Your task to perform on an android device: turn off javascript in the chrome app Image 0: 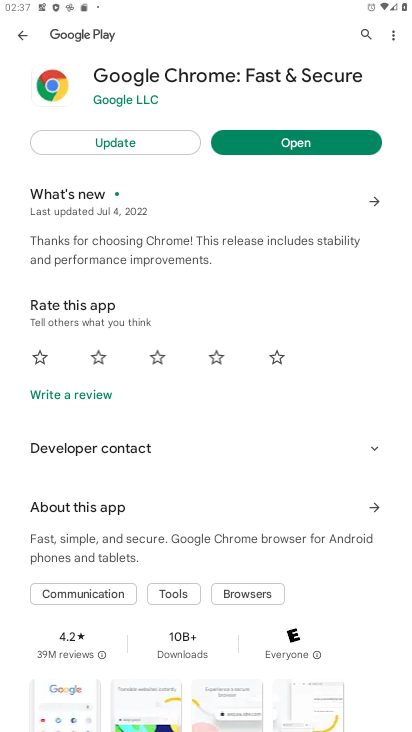
Step 0: press home button
Your task to perform on an android device: turn off javascript in the chrome app Image 1: 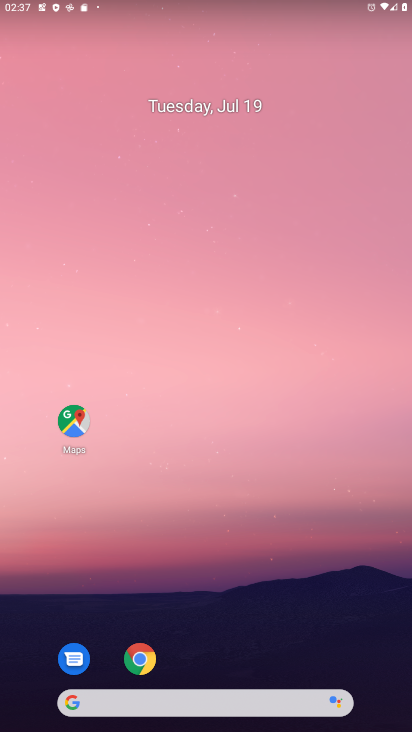
Step 1: click (120, 661)
Your task to perform on an android device: turn off javascript in the chrome app Image 2: 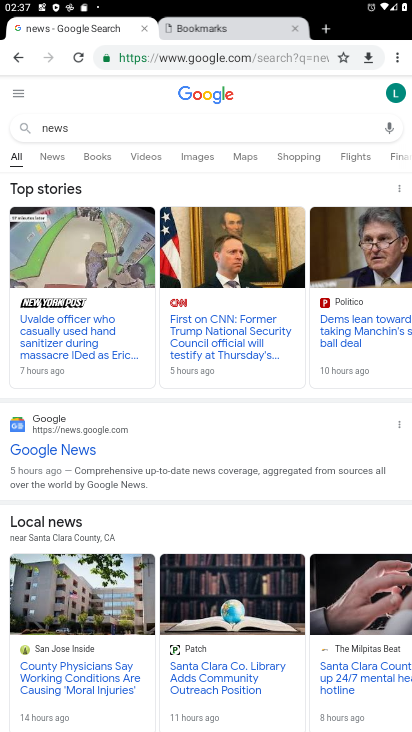
Step 2: click (392, 59)
Your task to perform on an android device: turn off javascript in the chrome app Image 3: 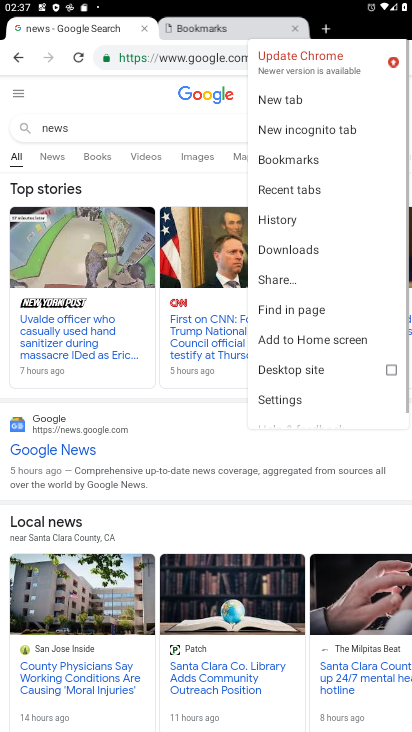
Step 3: click (297, 394)
Your task to perform on an android device: turn off javascript in the chrome app Image 4: 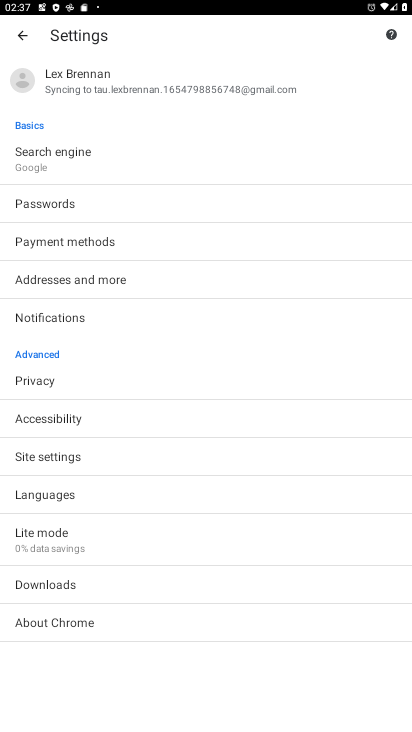
Step 4: click (43, 461)
Your task to perform on an android device: turn off javascript in the chrome app Image 5: 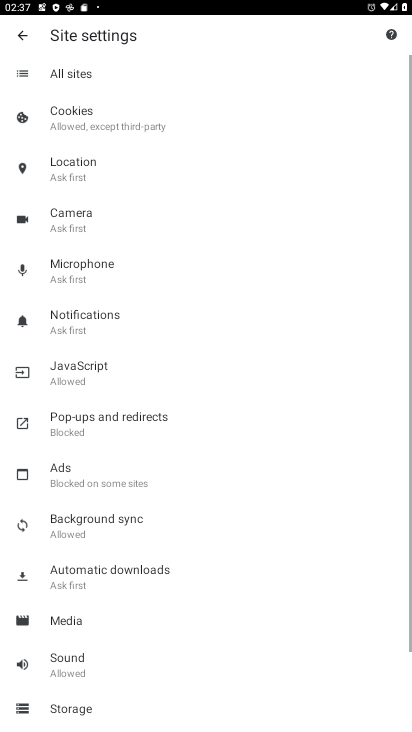
Step 5: click (47, 377)
Your task to perform on an android device: turn off javascript in the chrome app Image 6: 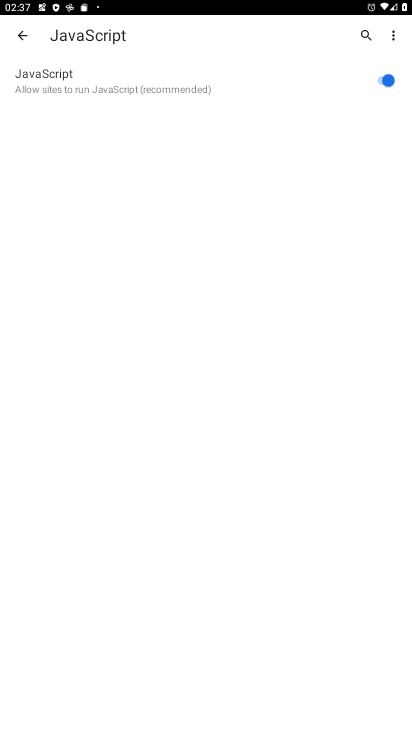
Step 6: click (238, 79)
Your task to perform on an android device: turn off javascript in the chrome app Image 7: 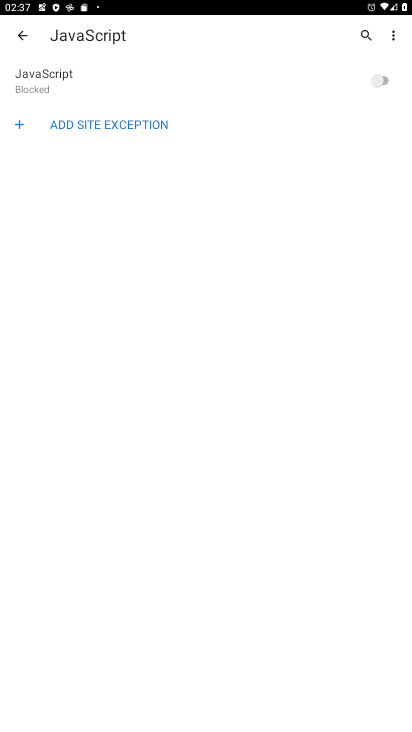
Step 7: task complete